Your task to perform on an android device: clear all cookies in the chrome app Image 0: 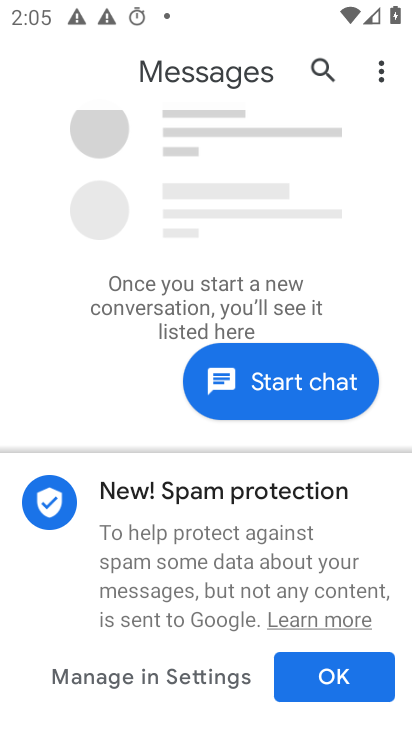
Step 0: press home button
Your task to perform on an android device: clear all cookies in the chrome app Image 1: 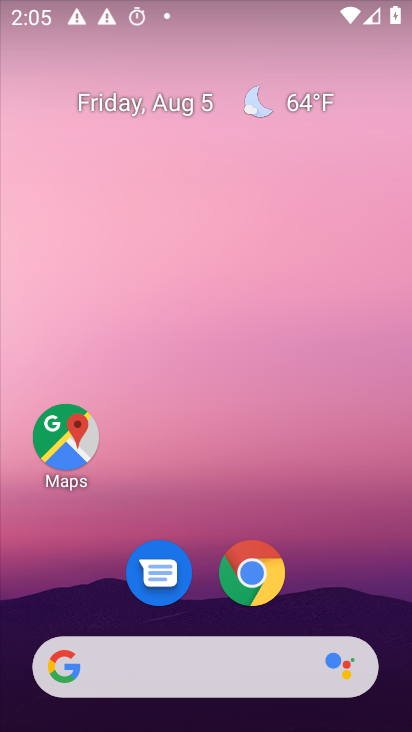
Step 1: drag from (354, 583) to (371, 245)
Your task to perform on an android device: clear all cookies in the chrome app Image 2: 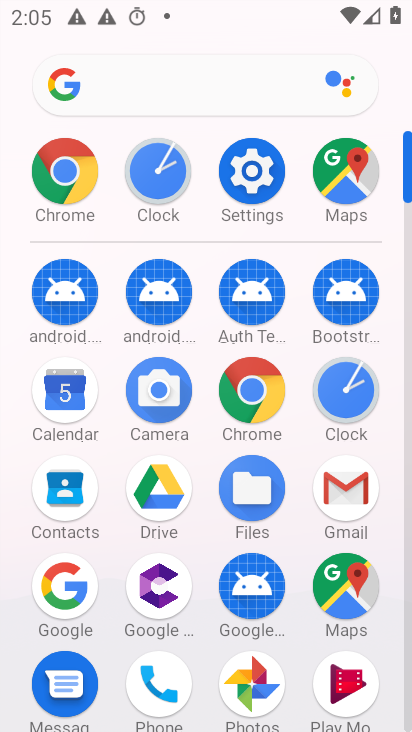
Step 2: click (254, 392)
Your task to perform on an android device: clear all cookies in the chrome app Image 3: 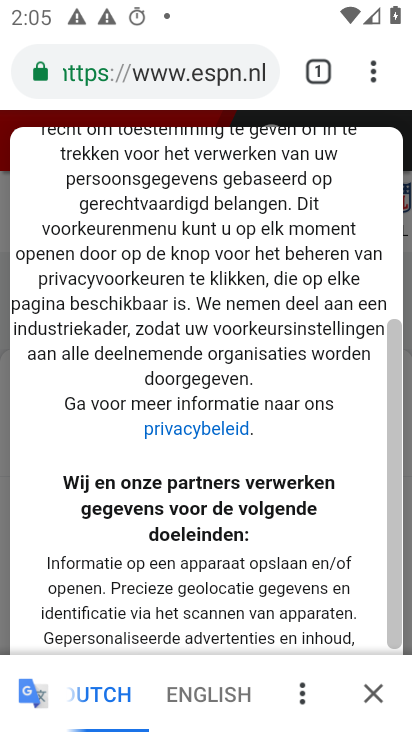
Step 3: click (375, 72)
Your task to perform on an android device: clear all cookies in the chrome app Image 4: 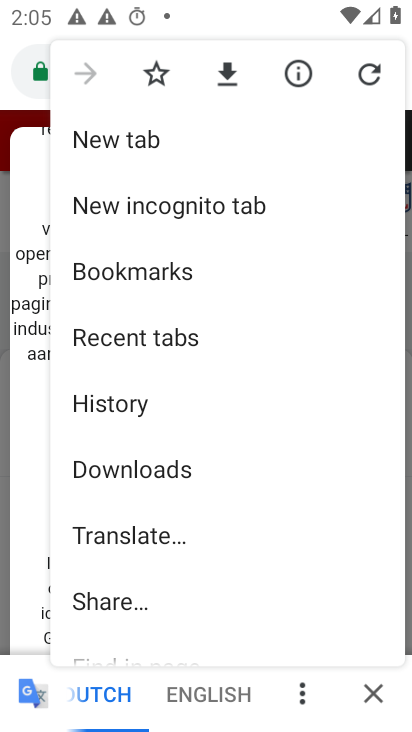
Step 4: drag from (318, 444) to (315, 286)
Your task to perform on an android device: clear all cookies in the chrome app Image 5: 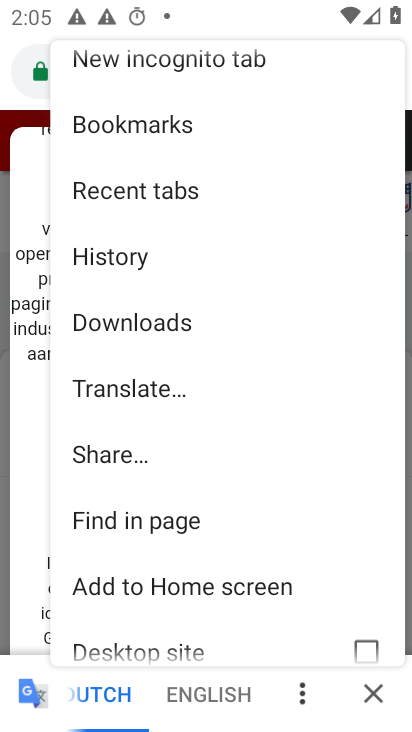
Step 5: drag from (290, 424) to (305, 294)
Your task to perform on an android device: clear all cookies in the chrome app Image 6: 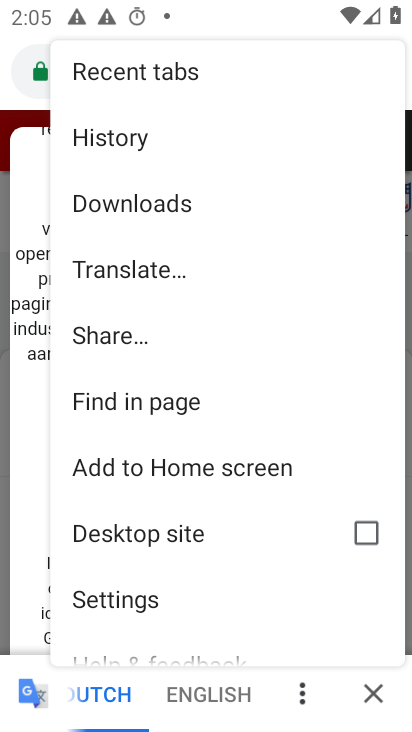
Step 6: drag from (276, 460) to (277, 330)
Your task to perform on an android device: clear all cookies in the chrome app Image 7: 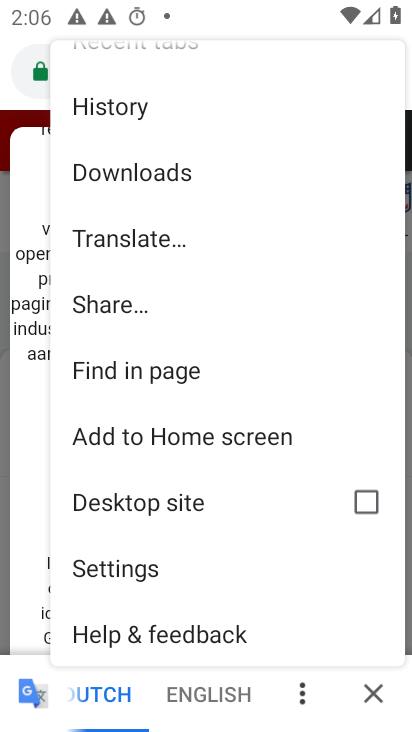
Step 7: drag from (279, 522) to (281, 365)
Your task to perform on an android device: clear all cookies in the chrome app Image 8: 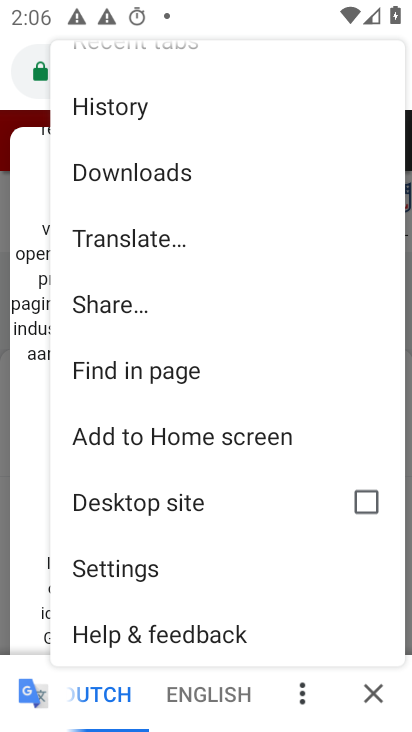
Step 8: click (166, 571)
Your task to perform on an android device: clear all cookies in the chrome app Image 9: 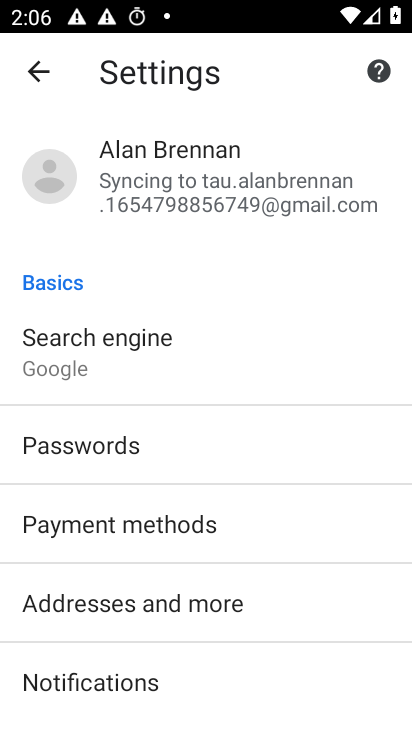
Step 9: drag from (289, 621) to (305, 453)
Your task to perform on an android device: clear all cookies in the chrome app Image 10: 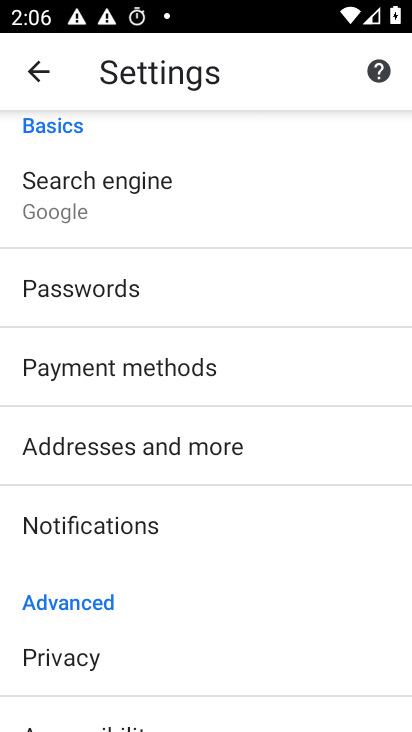
Step 10: drag from (270, 621) to (273, 455)
Your task to perform on an android device: clear all cookies in the chrome app Image 11: 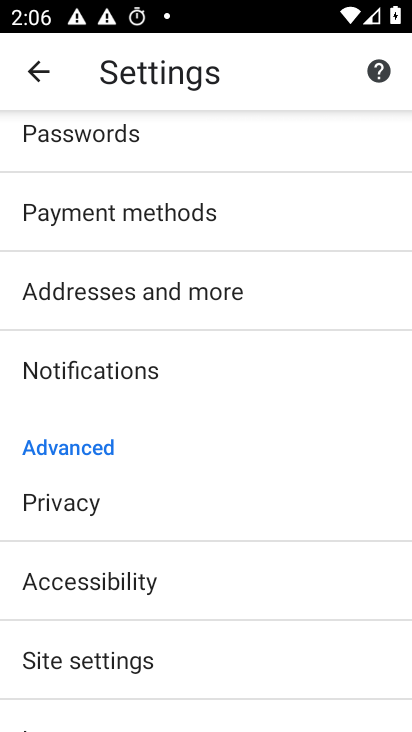
Step 11: drag from (272, 613) to (272, 499)
Your task to perform on an android device: clear all cookies in the chrome app Image 12: 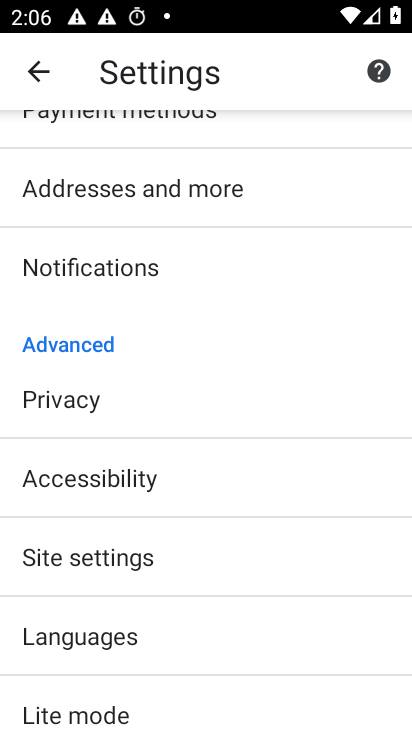
Step 12: click (215, 413)
Your task to perform on an android device: clear all cookies in the chrome app Image 13: 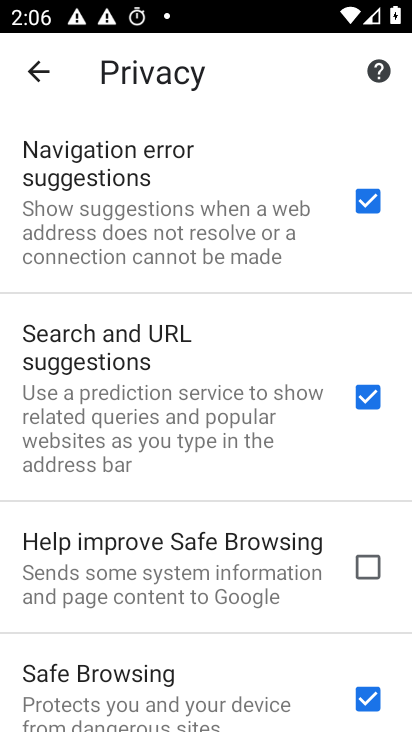
Step 13: drag from (286, 564) to (293, 359)
Your task to perform on an android device: clear all cookies in the chrome app Image 14: 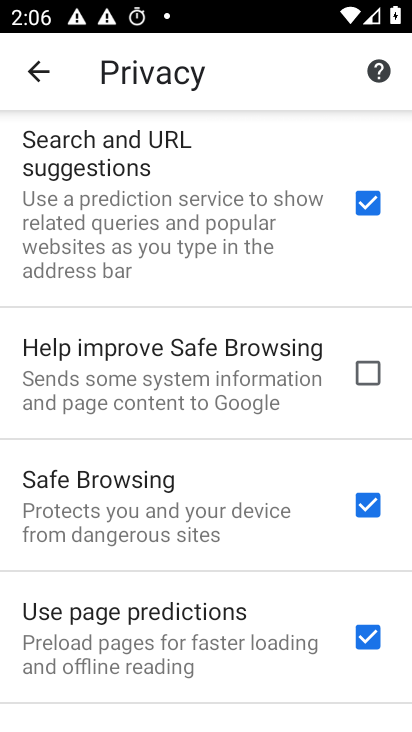
Step 14: drag from (264, 567) to (275, 340)
Your task to perform on an android device: clear all cookies in the chrome app Image 15: 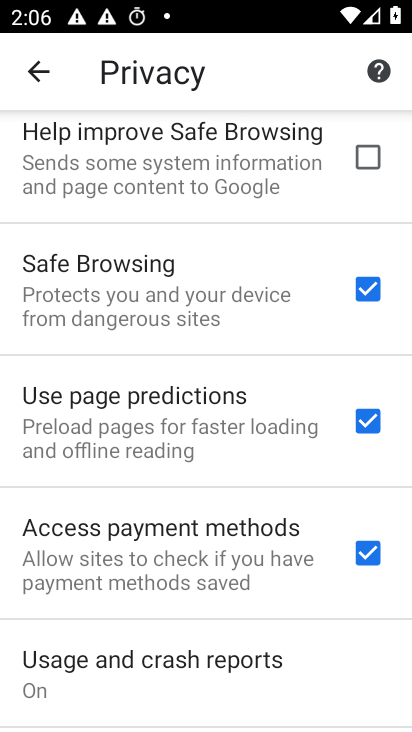
Step 15: drag from (265, 570) to (275, 390)
Your task to perform on an android device: clear all cookies in the chrome app Image 16: 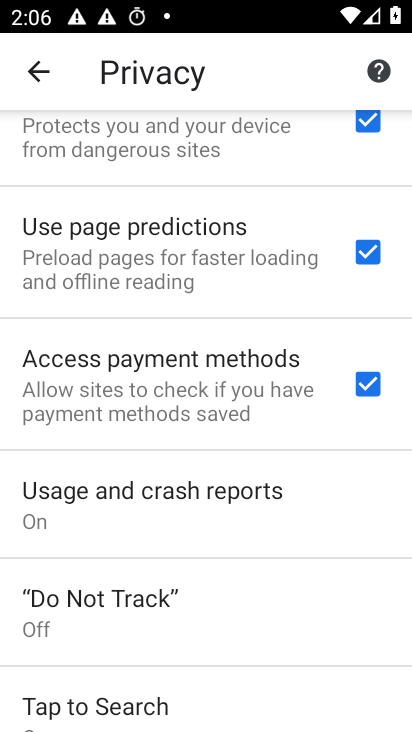
Step 16: drag from (266, 579) to (281, 431)
Your task to perform on an android device: clear all cookies in the chrome app Image 17: 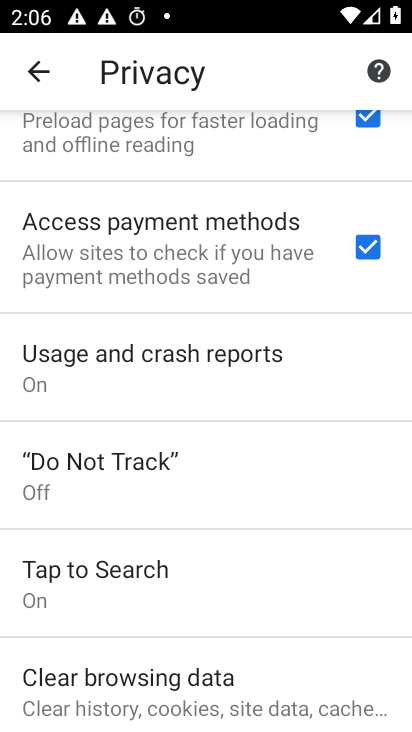
Step 17: drag from (259, 606) to (277, 432)
Your task to perform on an android device: clear all cookies in the chrome app Image 18: 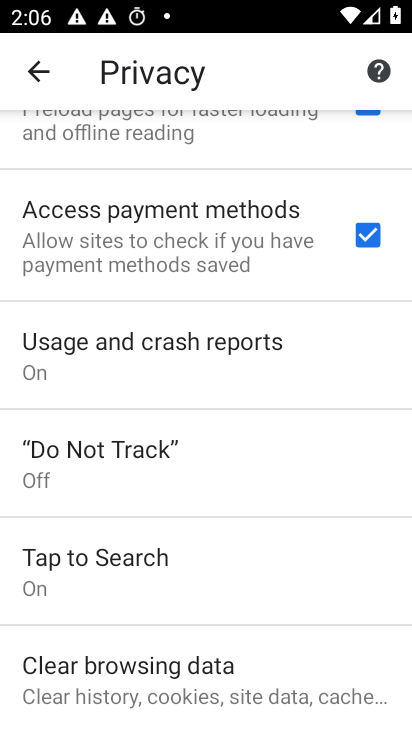
Step 18: click (232, 684)
Your task to perform on an android device: clear all cookies in the chrome app Image 19: 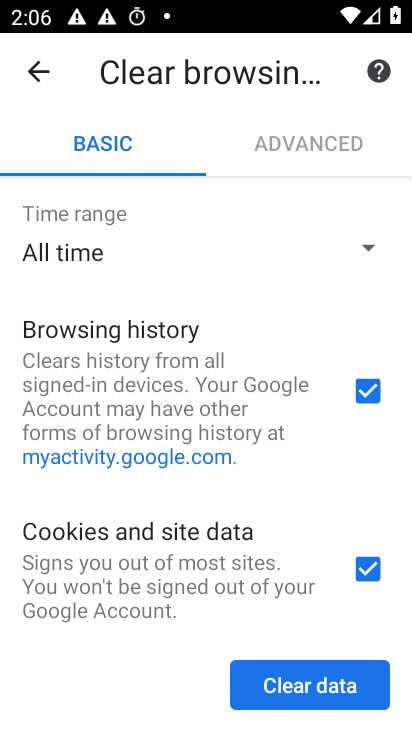
Step 19: click (312, 690)
Your task to perform on an android device: clear all cookies in the chrome app Image 20: 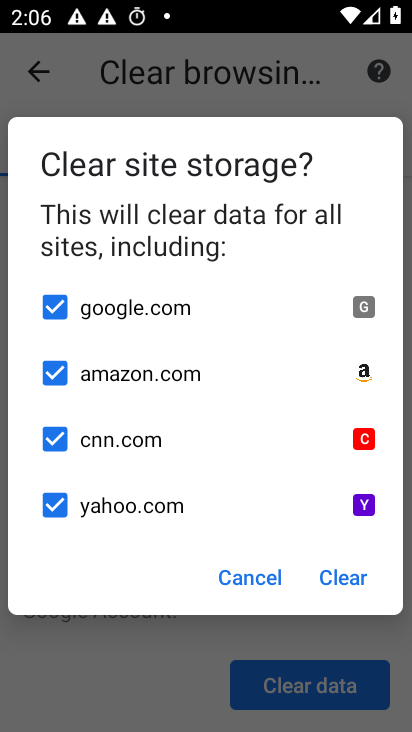
Step 20: click (348, 579)
Your task to perform on an android device: clear all cookies in the chrome app Image 21: 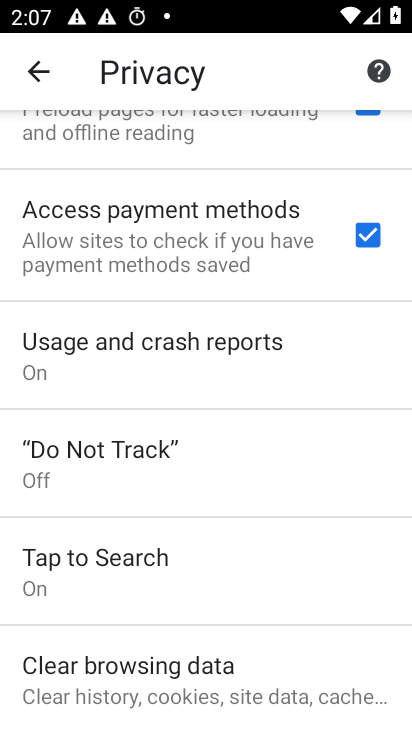
Step 21: task complete